Your task to perform on an android device: Open battery settings Image 0: 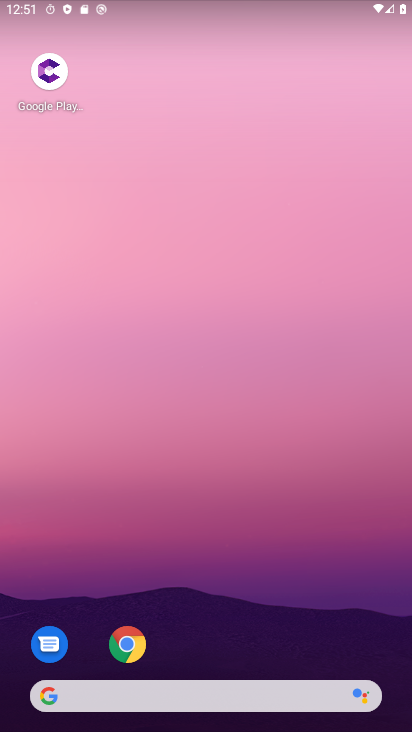
Step 0: drag from (190, 598) to (169, 1)
Your task to perform on an android device: Open battery settings Image 1: 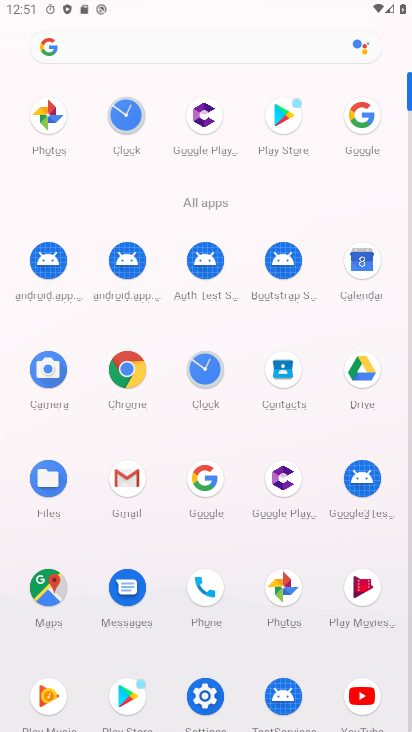
Step 1: click (212, 702)
Your task to perform on an android device: Open battery settings Image 2: 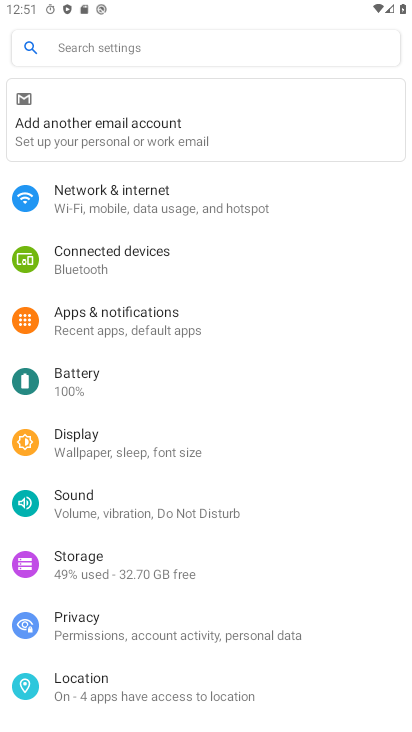
Step 2: click (75, 382)
Your task to perform on an android device: Open battery settings Image 3: 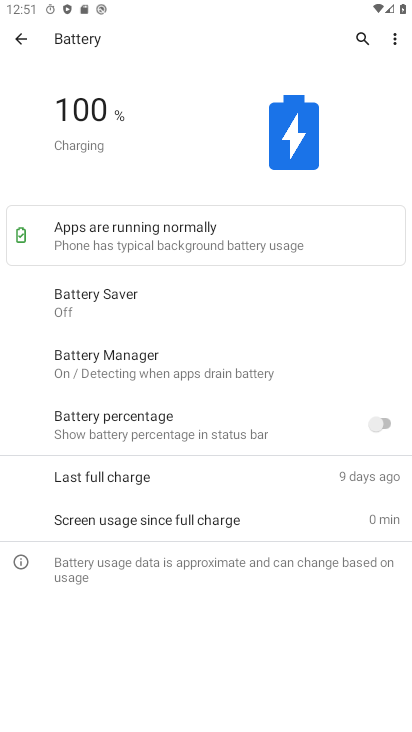
Step 3: task complete